Your task to perform on an android device: check google app version Image 0: 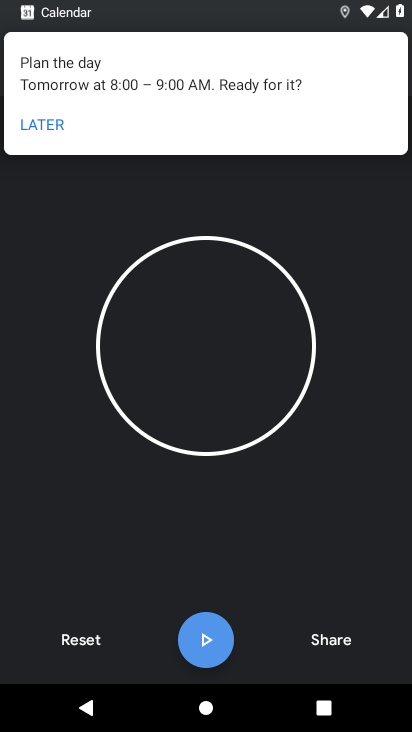
Step 0: press home button
Your task to perform on an android device: check google app version Image 1: 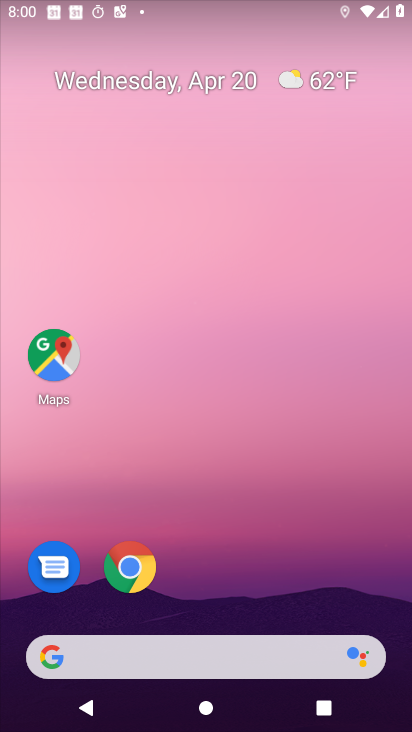
Step 1: drag from (357, 579) to (252, 234)
Your task to perform on an android device: check google app version Image 2: 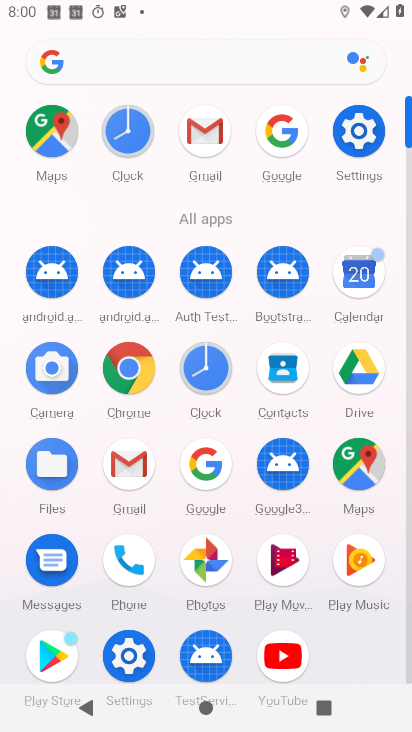
Step 2: click (281, 135)
Your task to perform on an android device: check google app version Image 3: 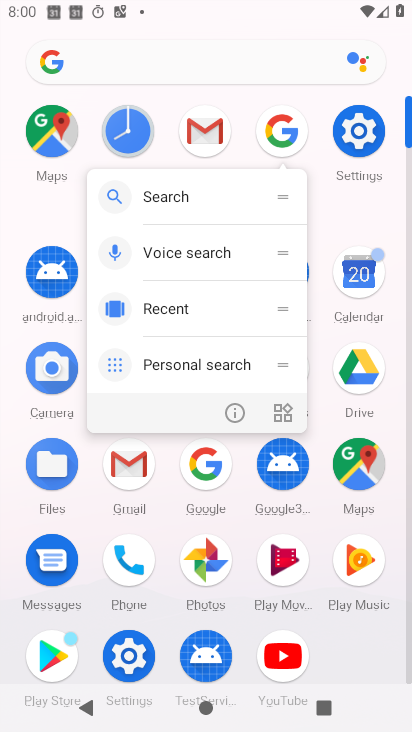
Step 3: click (231, 413)
Your task to perform on an android device: check google app version Image 4: 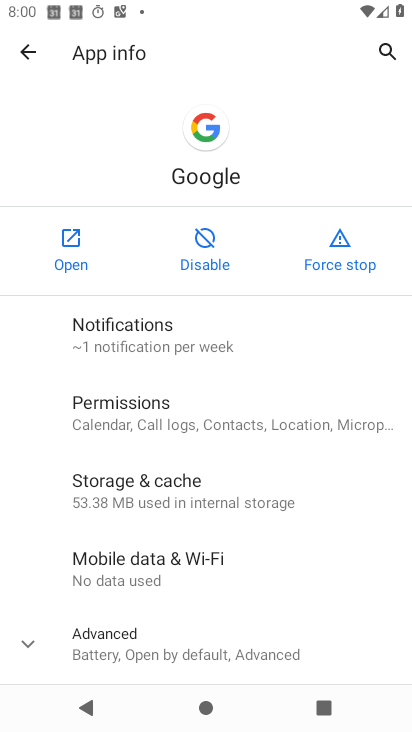
Step 4: drag from (250, 460) to (316, 256)
Your task to perform on an android device: check google app version Image 5: 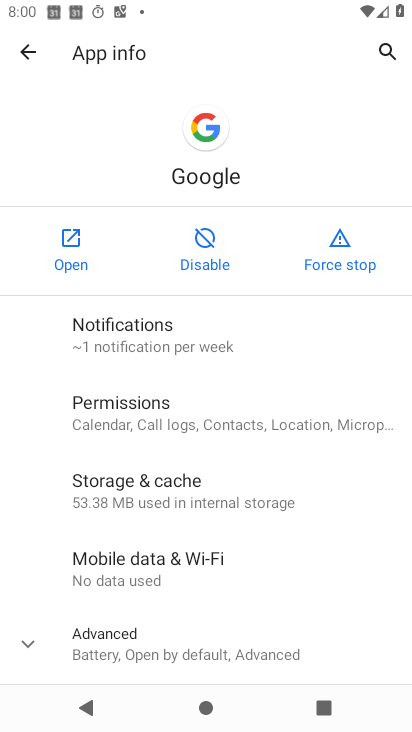
Step 5: drag from (324, 494) to (328, 208)
Your task to perform on an android device: check google app version Image 6: 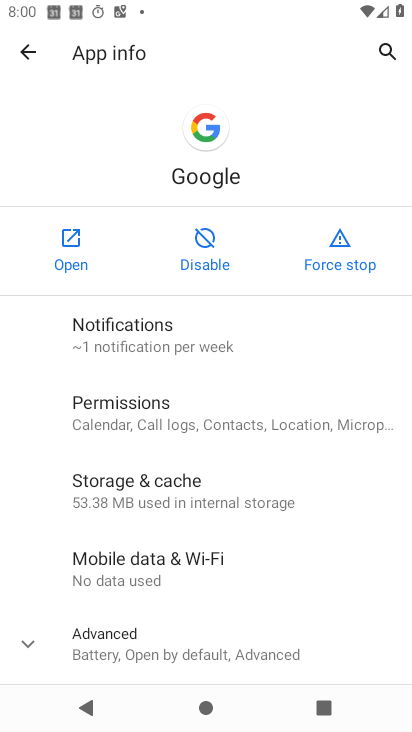
Step 6: drag from (320, 480) to (230, 98)
Your task to perform on an android device: check google app version Image 7: 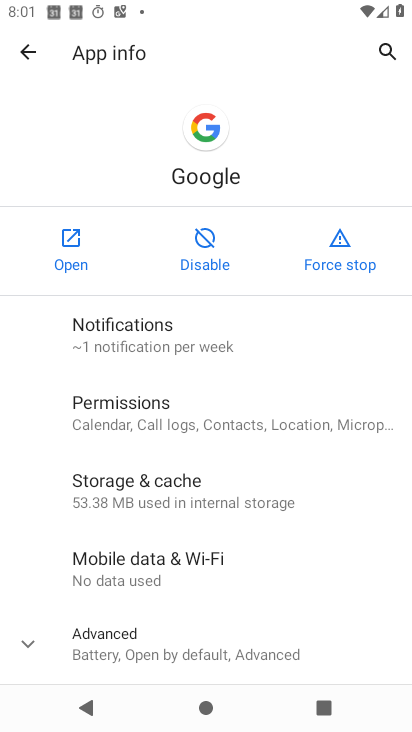
Step 7: drag from (361, 522) to (372, 237)
Your task to perform on an android device: check google app version Image 8: 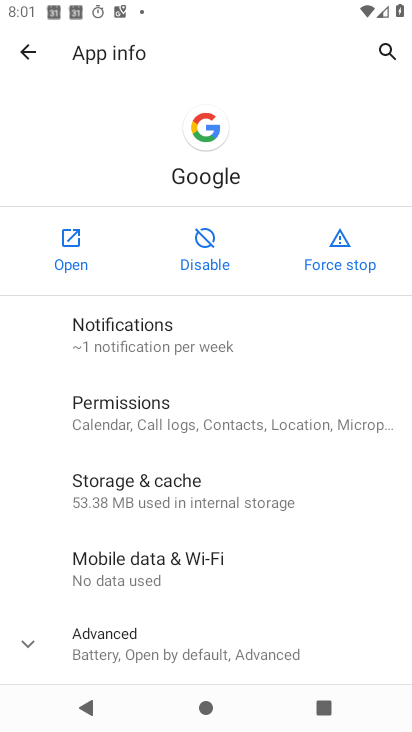
Step 8: drag from (360, 625) to (371, 109)
Your task to perform on an android device: check google app version Image 9: 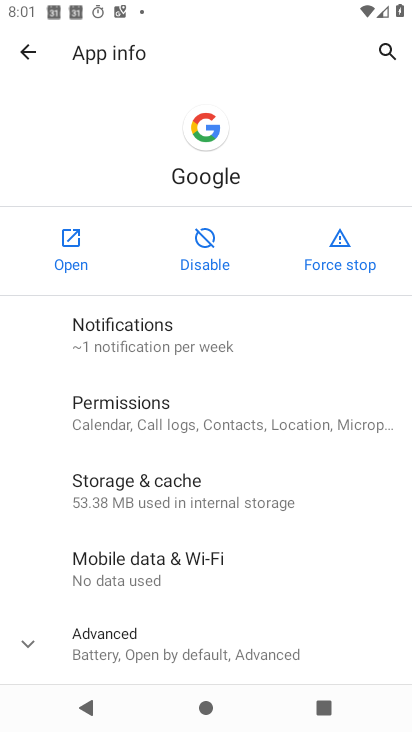
Step 9: drag from (333, 467) to (316, 94)
Your task to perform on an android device: check google app version Image 10: 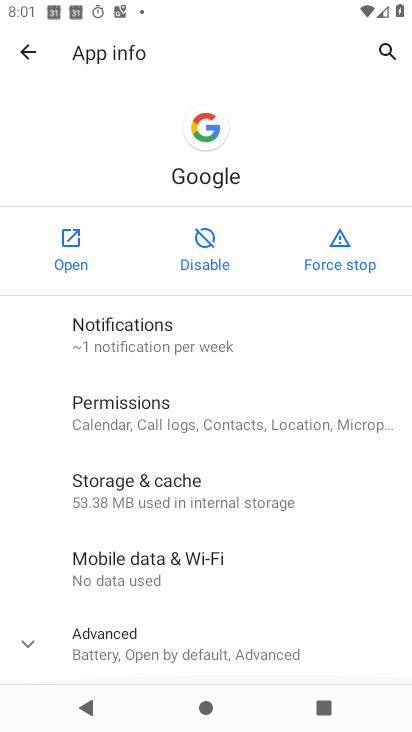
Step 10: click (29, 641)
Your task to perform on an android device: check google app version Image 11: 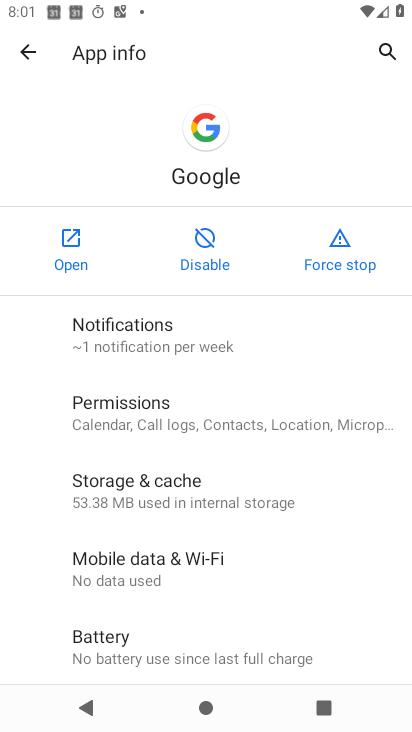
Step 11: task complete